Your task to perform on an android device: turn on javascript in the chrome app Image 0: 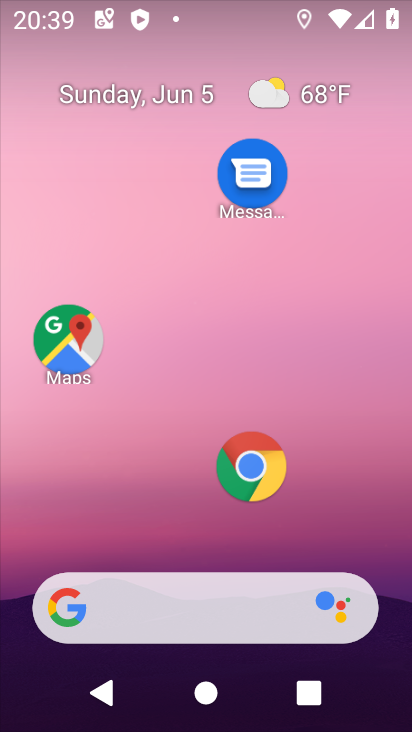
Step 0: drag from (376, 40) to (318, 0)
Your task to perform on an android device: turn on javascript in the chrome app Image 1: 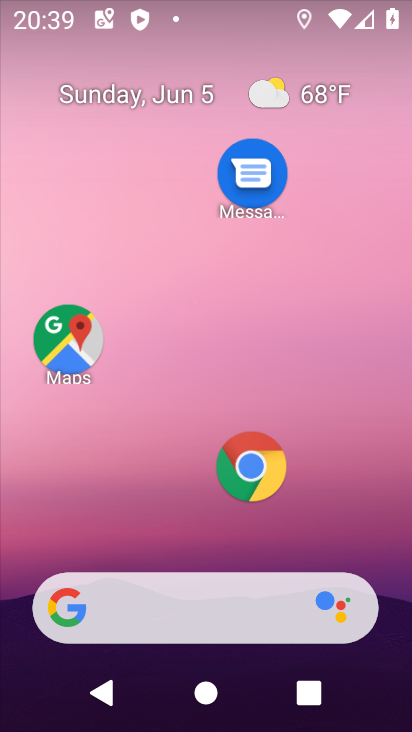
Step 1: drag from (226, 403) to (284, 4)
Your task to perform on an android device: turn on javascript in the chrome app Image 2: 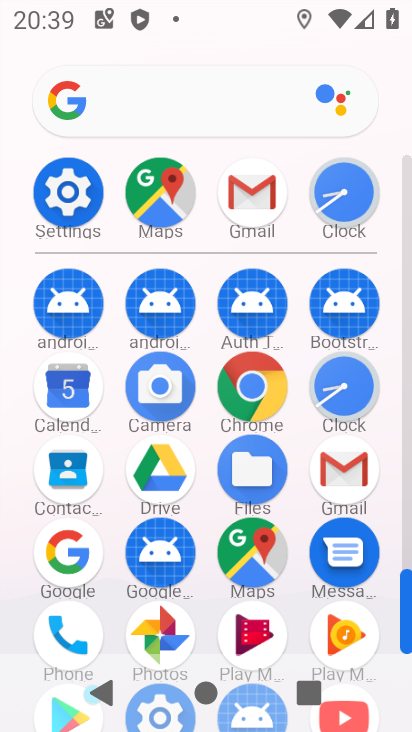
Step 2: click (250, 392)
Your task to perform on an android device: turn on javascript in the chrome app Image 3: 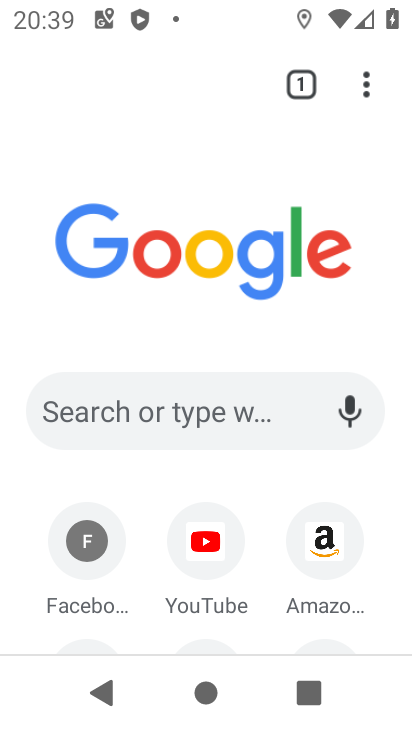
Step 3: click (372, 86)
Your task to perform on an android device: turn on javascript in the chrome app Image 4: 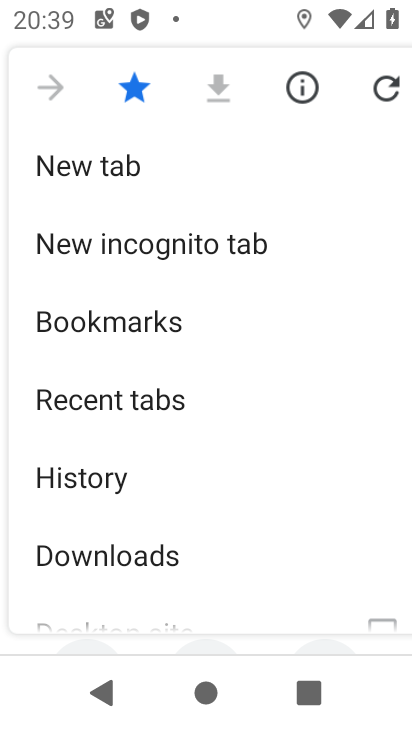
Step 4: drag from (209, 532) to (268, 9)
Your task to perform on an android device: turn on javascript in the chrome app Image 5: 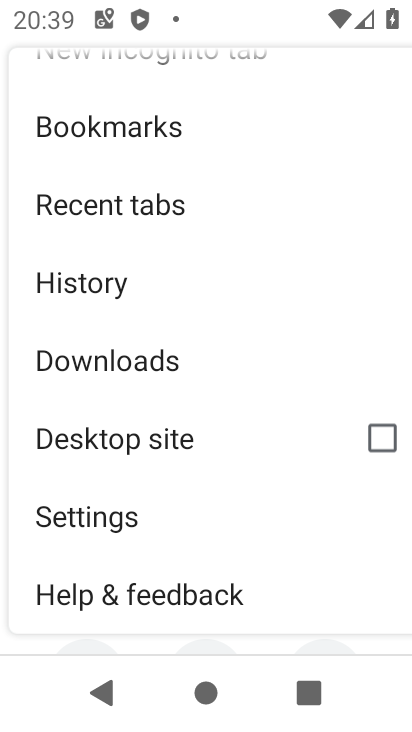
Step 5: click (146, 530)
Your task to perform on an android device: turn on javascript in the chrome app Image 6: 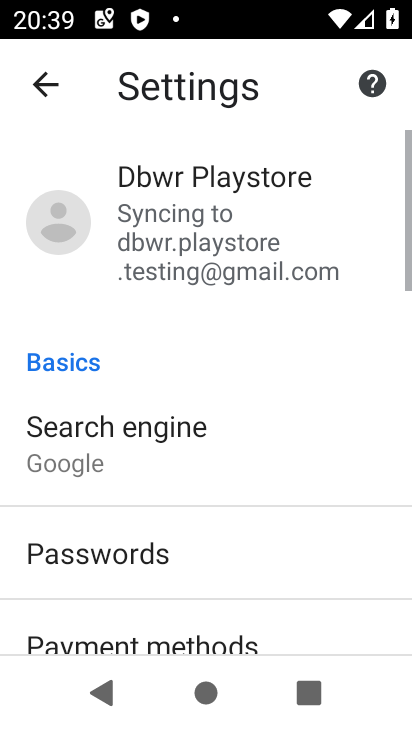
Step 6: drag from (202, 432) to (387, 13)
Your task to perform on an android device: turn on javascript in the chrome app Image 7: 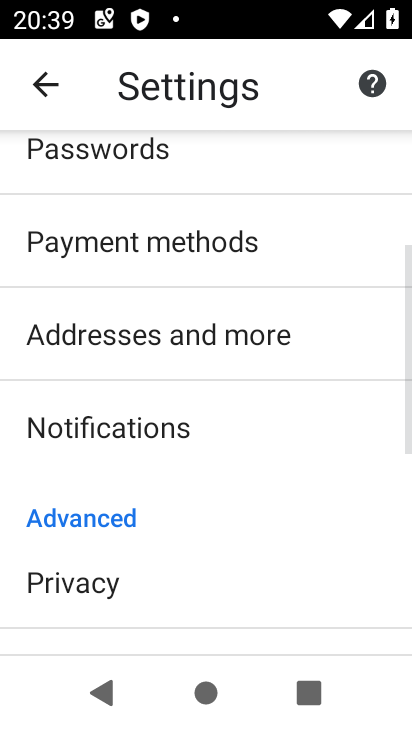
Step 7: drag from (263, 580) to (256, 0)
Your task to perform on an android device: turn on javascript in the chrome app Image 8: 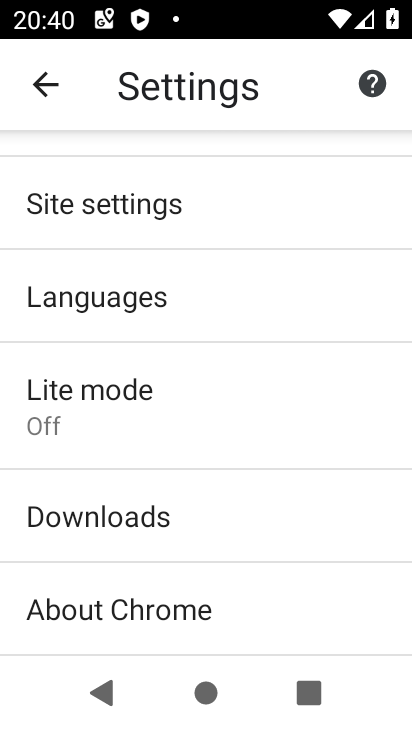
Step 8: drag from (252, 513) to (330, 210)
Your task to perform on an android device: turn on javascript in the chrome app Image 9: 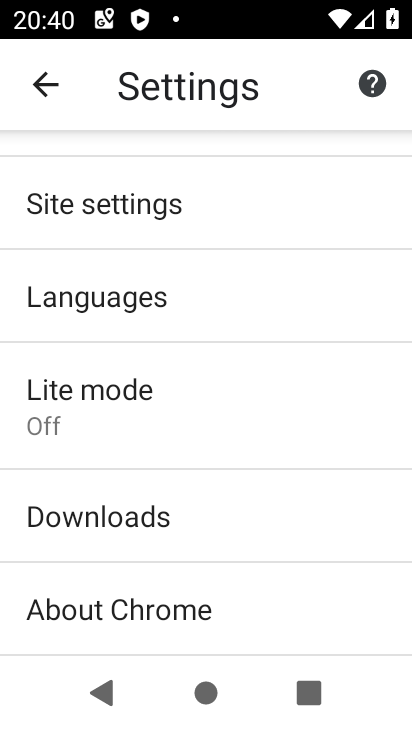
Step 9: drag from (289, 230) to (225, 649)
Your task to perform on an android device: turn on javascript in the chrome app Image 10: 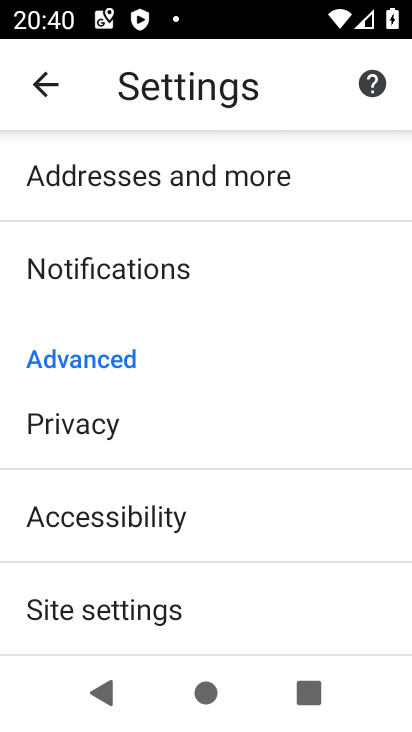
Step 10: click (221, 636)
Your task to perform on an android device: turn on javascript in the chrome app Image 11: 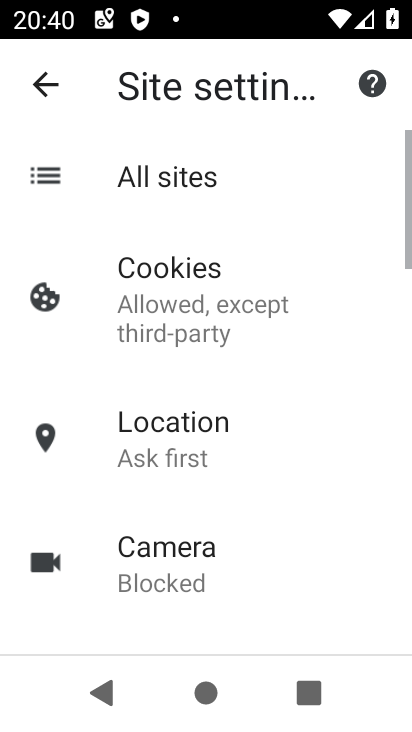
Step 11: drag from (218, 614) to (306, 207)
Your task to perform on an android device: turn on javascript in the chrome app Image 12: 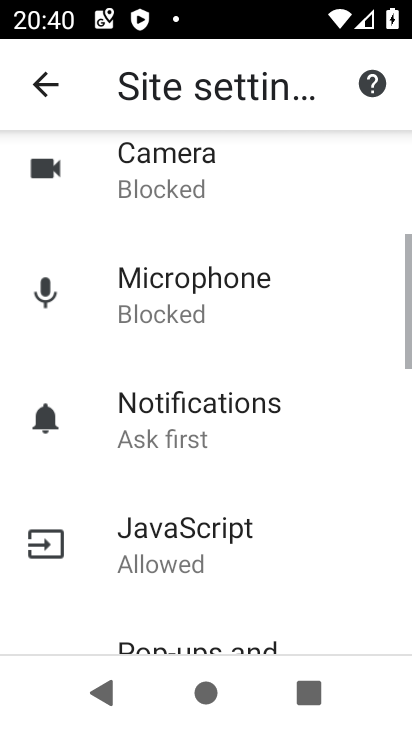
Step 12: drag from (283, 314) to (241, 675)
Your task to perform on an android device: turn on javascript in the chrome app Image 13: 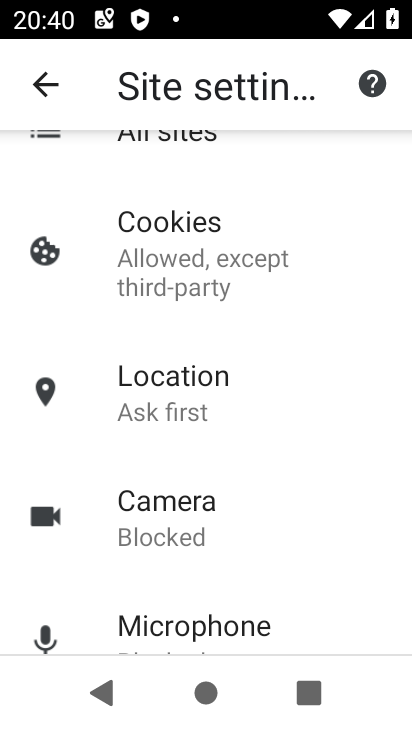
Step 13: drag from (247, 594) to (332, 116)
Your task to perform on an android device: turn on javascript in the chrome app Image 14: 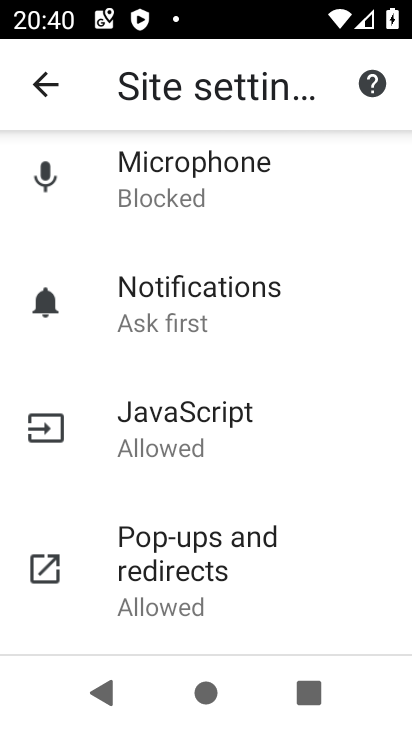
Step 14: click (187, 430)
Your task to perform on an android device: turn on javascript in the chrome app Image 15: 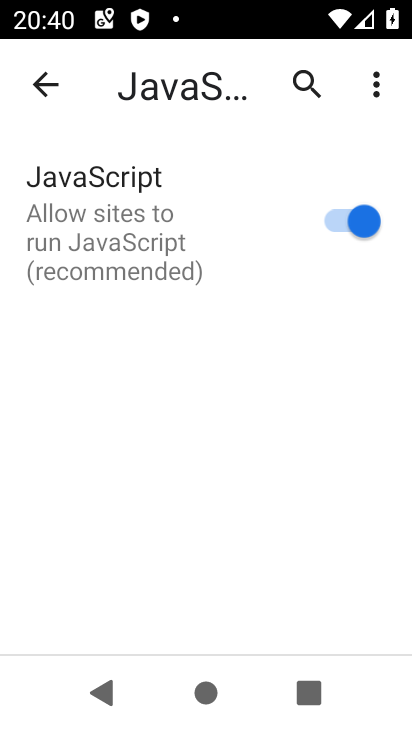
Step 15: click (348, 219)
Your task to perform on an android device: turn on javascript in the chrome app Image 16: 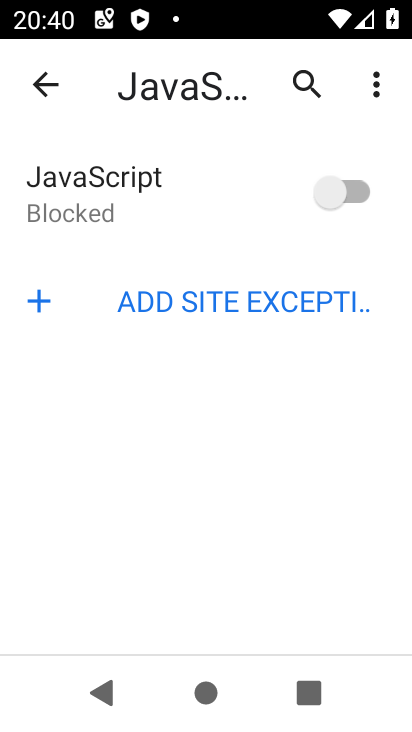
Step 16: click (348, 219)
Your task to perform on an android device: turn on javascript in the chrome app Image 17: 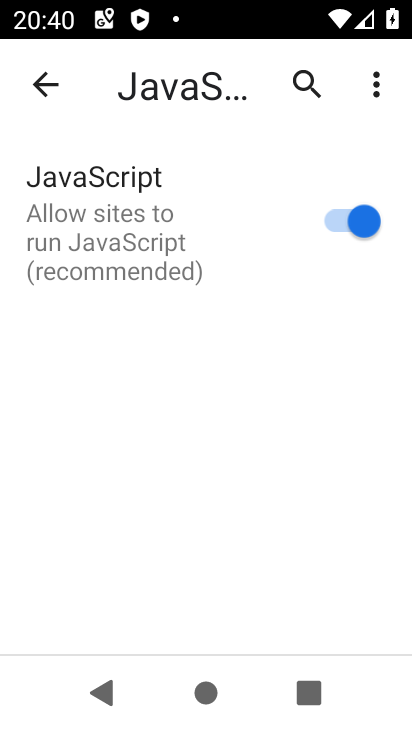
Step 17: task complete